Your task to perform on an android device: toggle priority inbox in the gmail app Image 0: 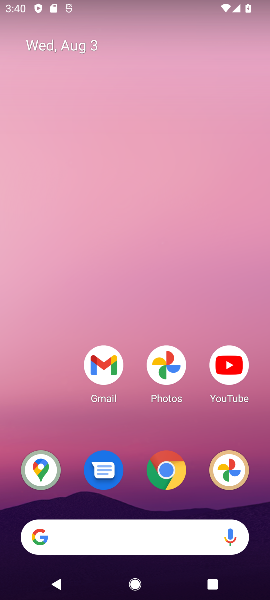
Step 0: press home button
Your task to perform on an android device: toggle priority inbox in the gmail app Image 1: 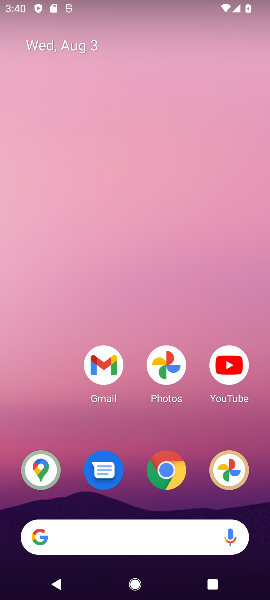
Step 1: drag from (192, 505) to (225, 100)
Your task to perform on an android device: toggle priority inbox in the gmail app Image 2: 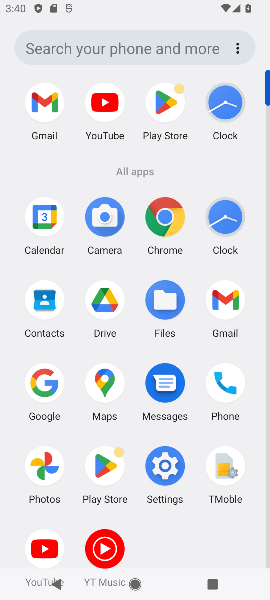
Step 2: click (235, 314)
Your task to perform on an android device: toggle priority inbox in the gmail app Image 3: 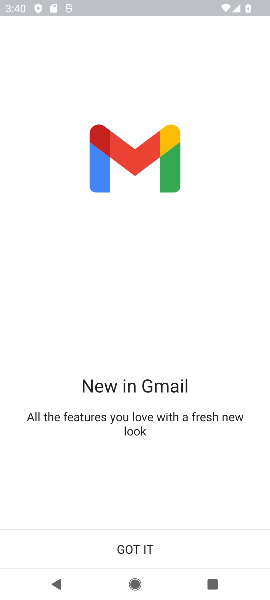
Step 3: click (135, 539)
Your task to perform on an android device: toggle priority inbox in the gmail app Image 4: 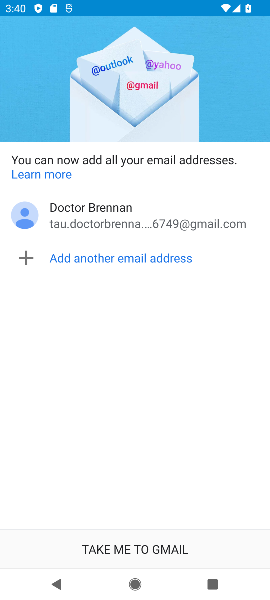
Step 4: click (135, 544)
Your task to perform on an android device: toggle priority inbox in the gmail app Image 5: 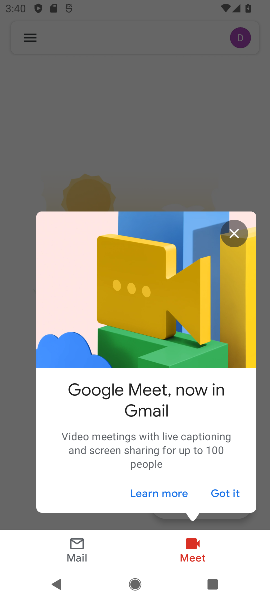
Step 5: click (219, 494)
Your task to perform on an android device: toggle priority inbox in the gmail app Image 6: 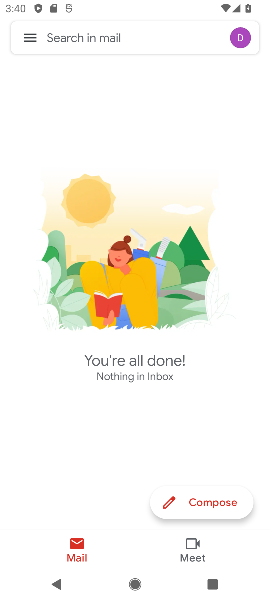
Step 6: click (27, 38)
Your task to perform on an android device: toggle priority inbox in the gmail app Image 7: 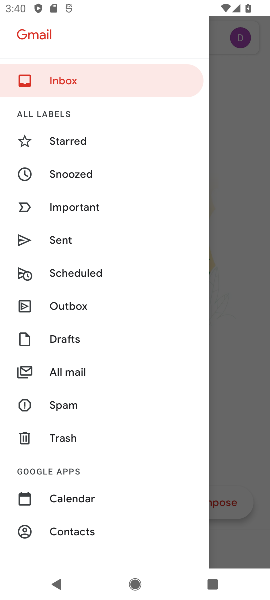
Step 7: drag from (70, 520) to (100, 138)
Your task to perform on an android device: toggle priority inbox in the gmail app Image 8: 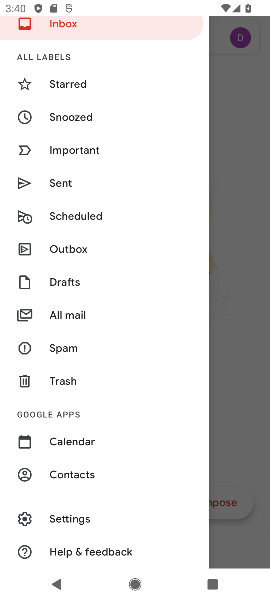
Step 8: click (88, 517)
Your task to perform on an android device: toggle priority inbox in the gmail app Image 9: 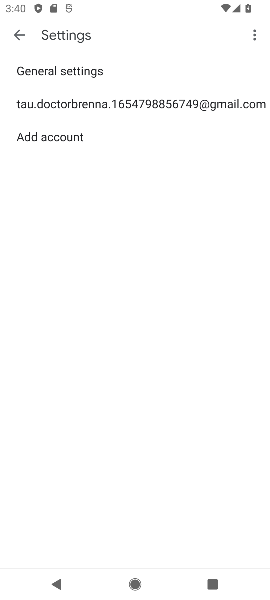
Step 9: click (96, 102)
Your task to perform on an android device: toggle priority inbox in the gmail app Image 10: 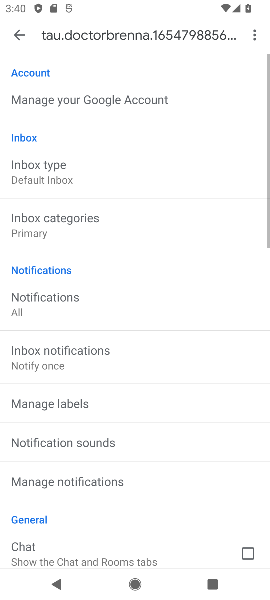
Step 10: click (56, 172)
Your task to perform on an android device: toggle priority inbox in the gmail app Image 11: 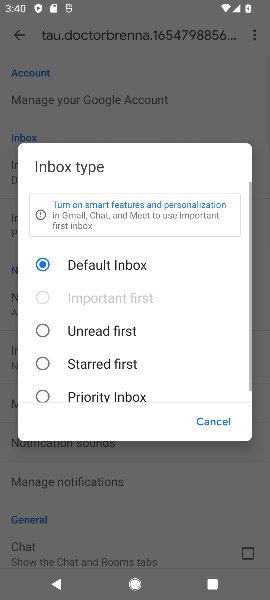
Step 11: click (94, 400)
Your task to perform on an android device: toggle priority inbox in the gmail app Image 12: 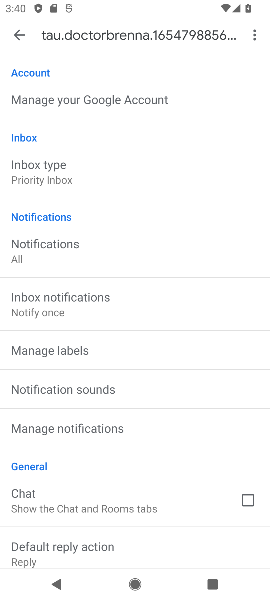
Step 12: task complete